Your task to perform on an android device: Add razer blackwidow to the cart on amazon.com Image 0: 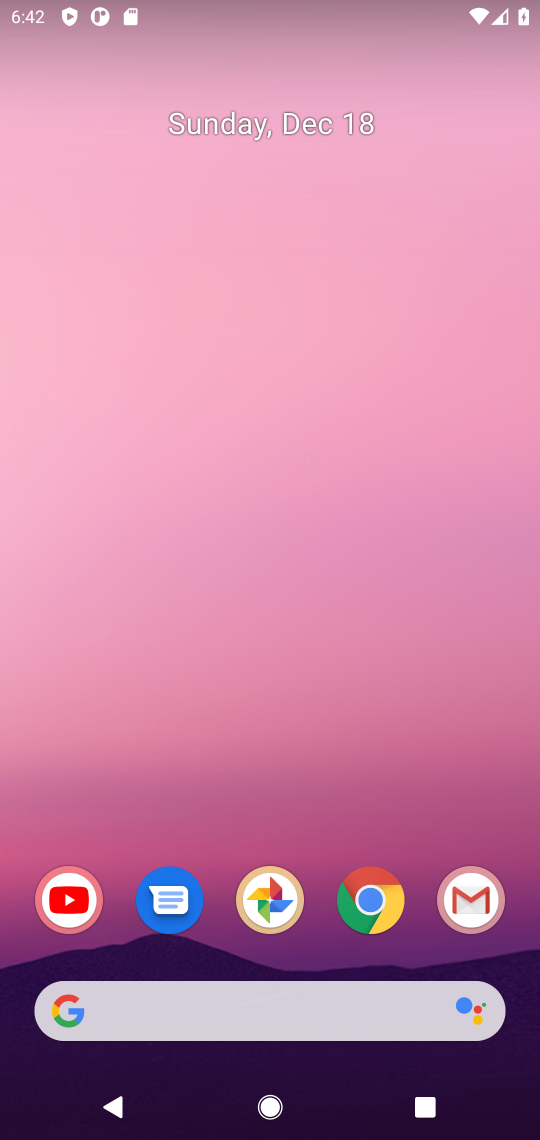
Step 0: click (364, 898)
Your task to perform on an android device: Add razer blackwidow to the cart on amazon.com Image 1: 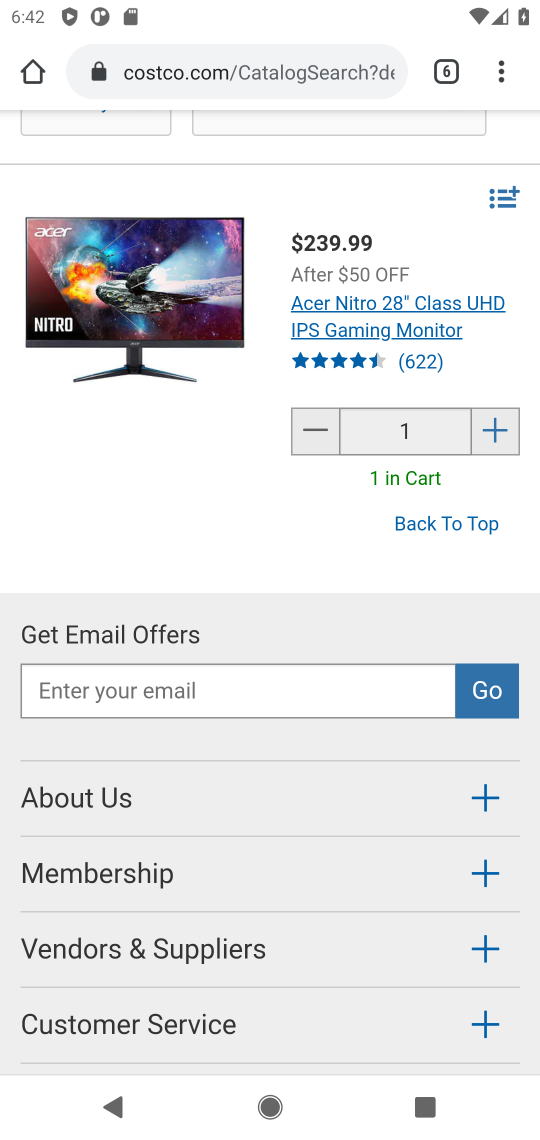
Step 1: click (444, 68)
Your task to perform on an android device: Add razer blackwidow to the cart on amazon.com Image 2: 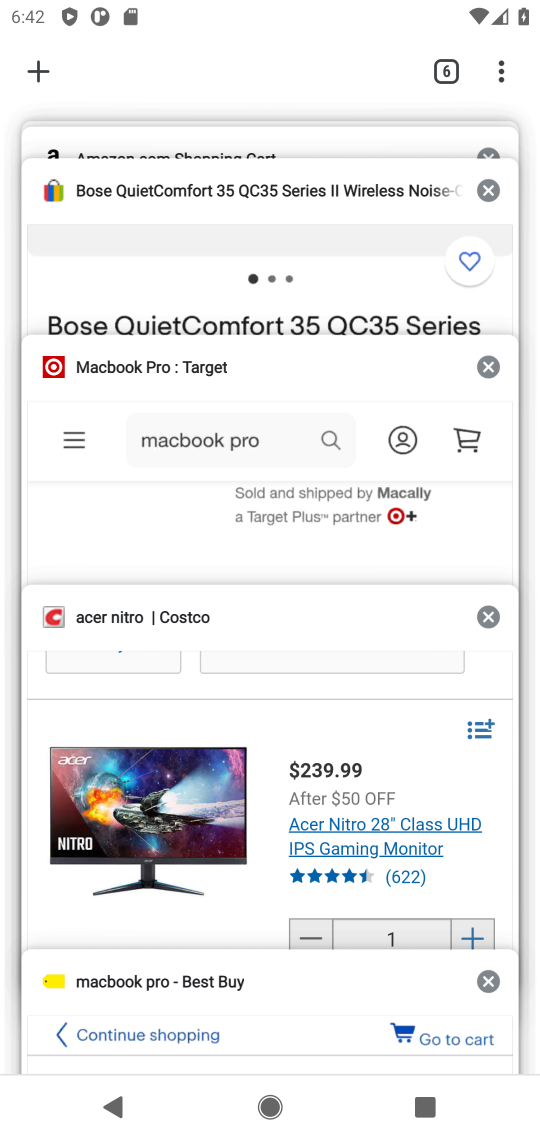
Step 2: drag from (331, 153) to (422, 779)
Your task to perform on an android device: Add razer blackwidow to the cart on amazon.com Image 3: 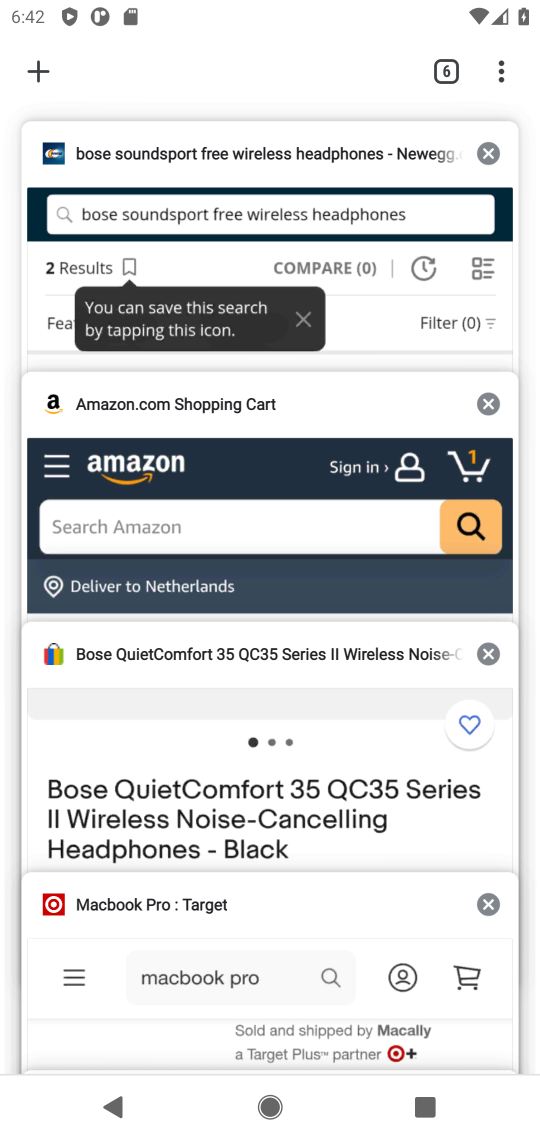
Step 3: click (366, 458)
Your task to perform on an android device: Add razer blackwidow to the cart on amazon.com Image 4: 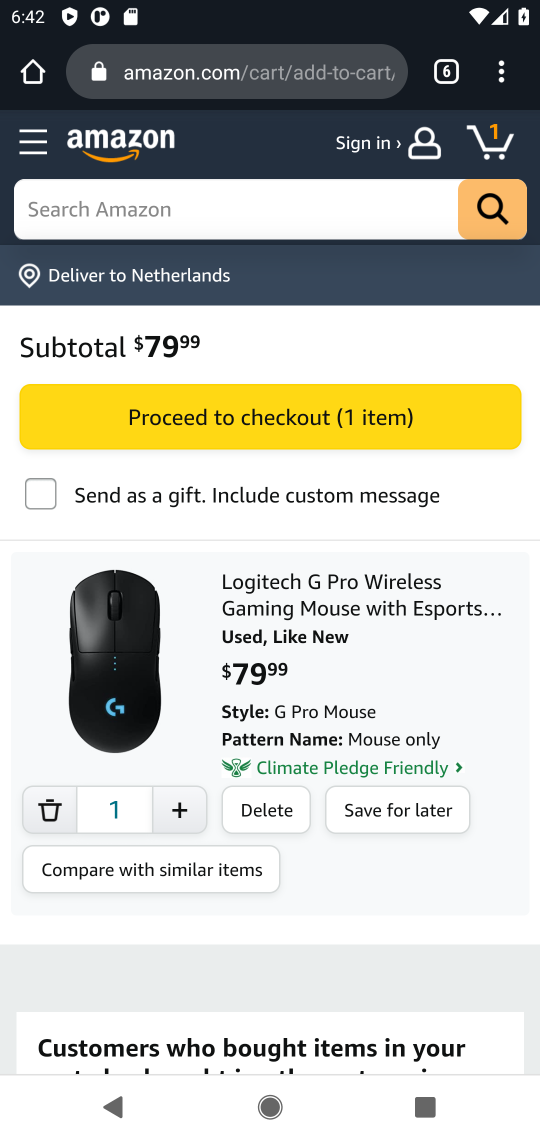
Step 4: click (368, 214)
Your task to perform on an android device: Add razer blackwidow to the cart on amazon.com Image 5: 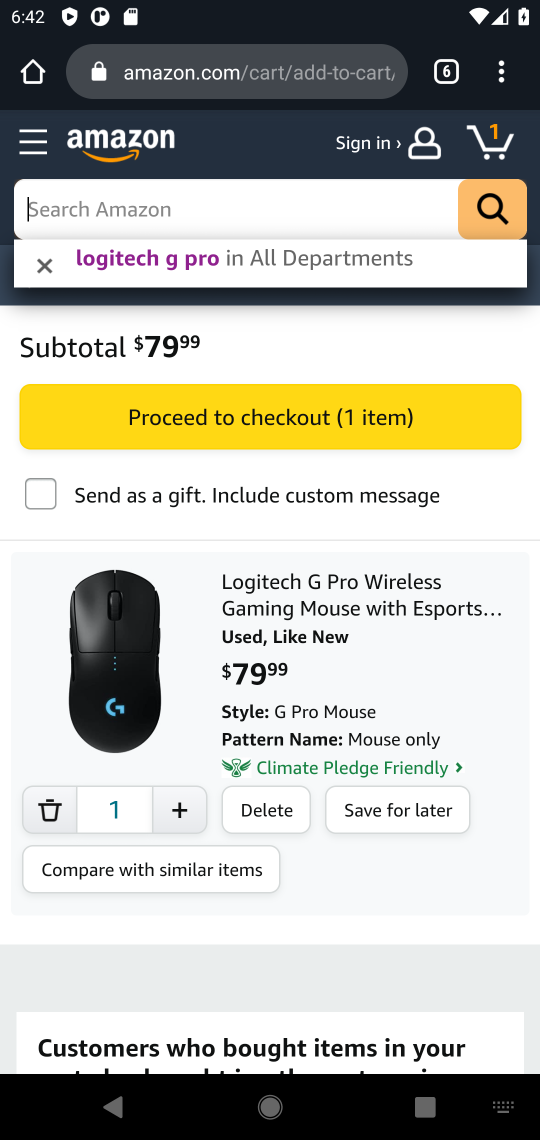
Step 5: type "razer blackwidow"
Your task to perform on an android device: Add razer blackwidow to the cart on amazon.com Image 6: 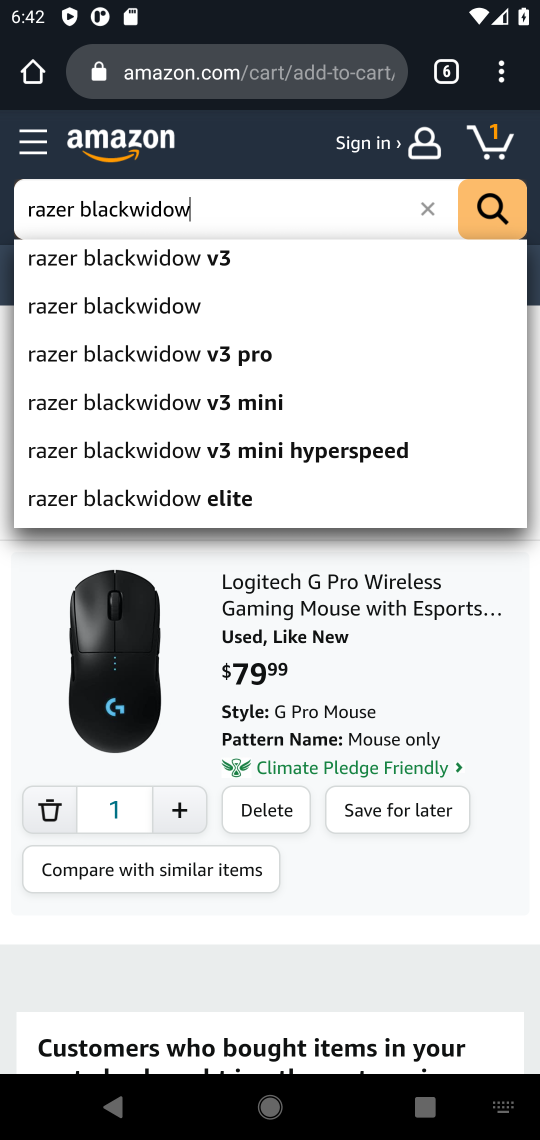
Step 6: click (151, 307)
Your task to perform on an android device: Add razer blackwidow to the cart on amazon.com Image 7: 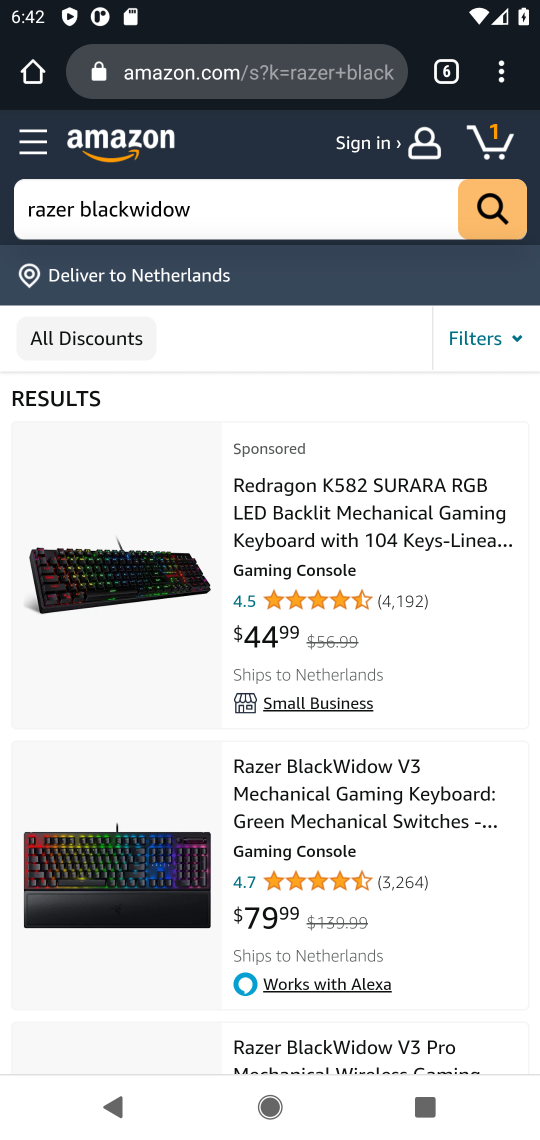
Step 7: click (376, 780)
Your task to perform on an android device: Add razer blackwidow to the cart on amazon.com Image 8: 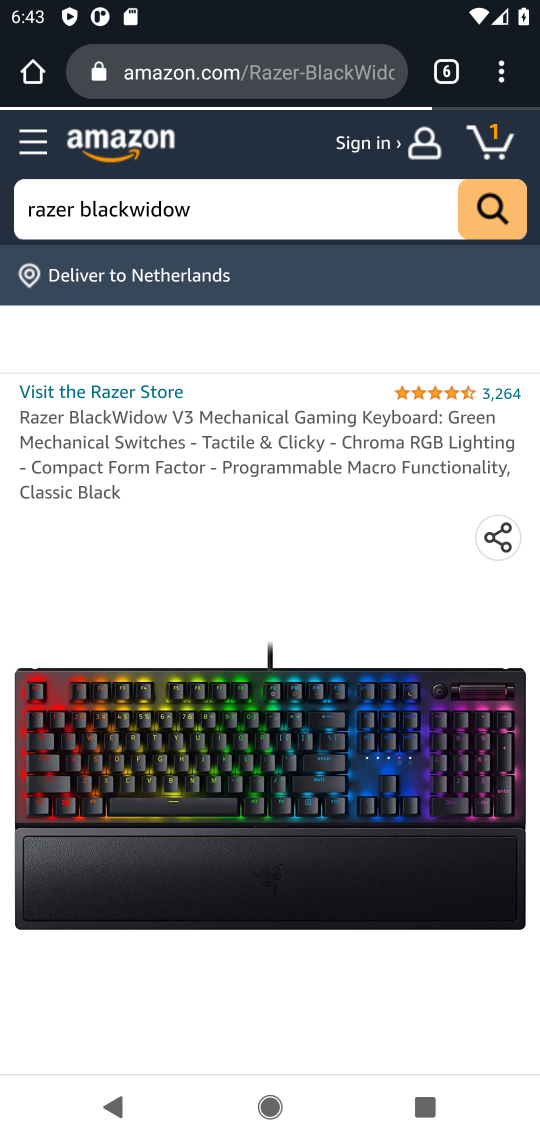
Step 8: drag from (348, 989) to (398, 369)
Your task to perform on an android device: Add razer blackwidow to the cart on amazon.com Image 9: 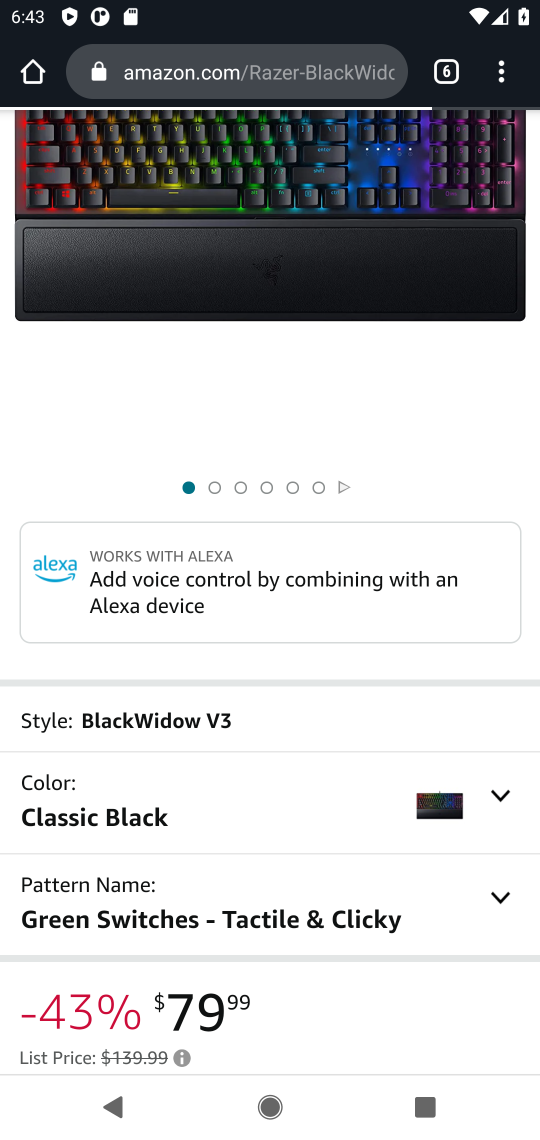
Step 9: drag from (291, 859) to (426, 188)
Your task to perform on an android device: Add razer blackwidow to the cart on amazon.com Image 10: 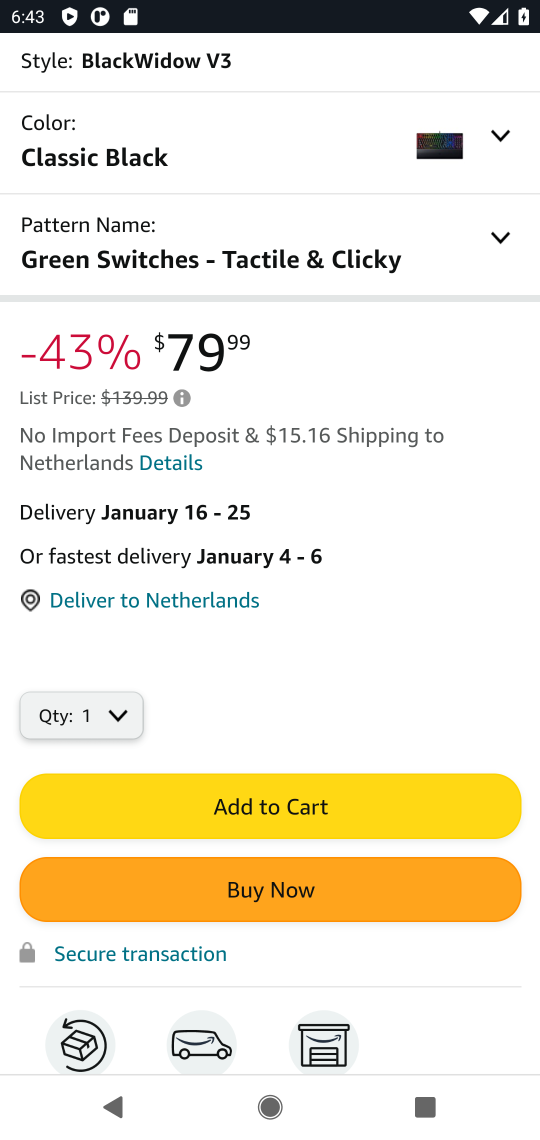
Step 10: click (274, 808)
Your task to perform on an android device: Add razer blackwidow to the cart on amazon.com Image 11: 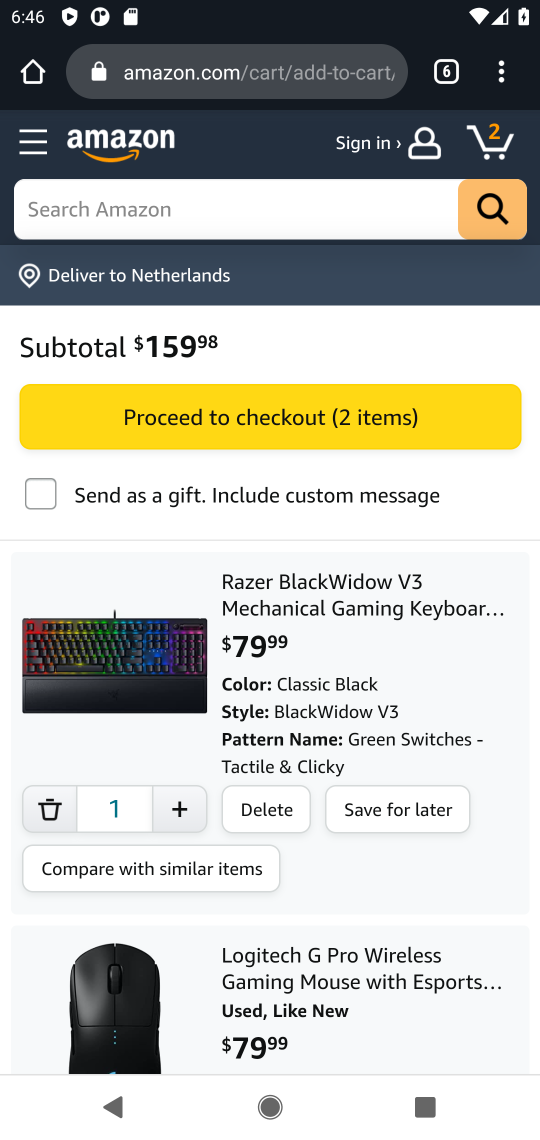
Step 11: task complete